Your task to perform on an android device: What is the recent news? Image 0: 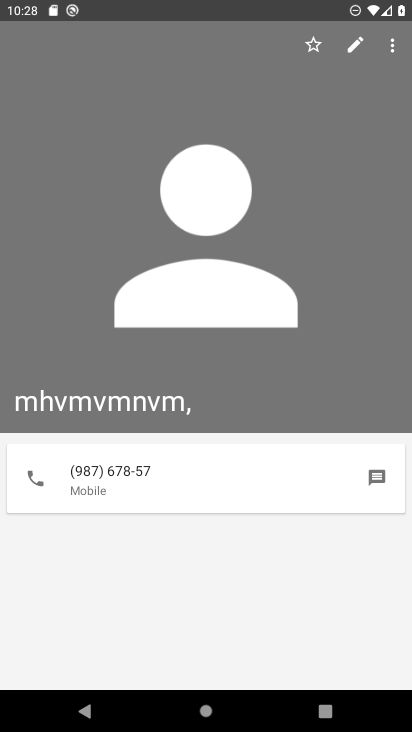
Step 0: press home button
Your task to perform on an android device: What is the recent news? Image 1: 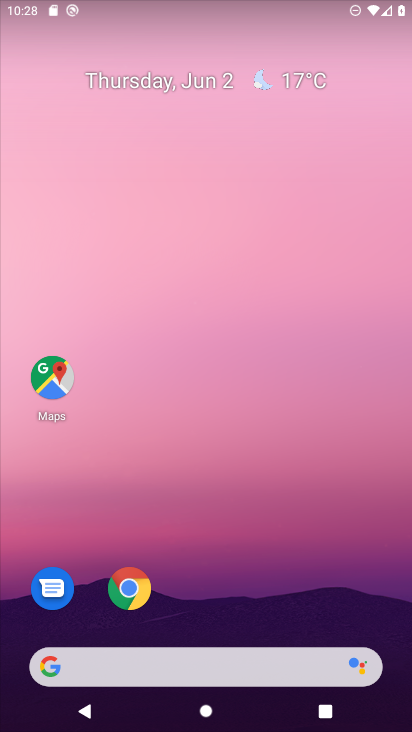
Step 1: drag from (231, 617) to (277, 215)
Your task to perform on an android device: What is the recent news? Image 2: 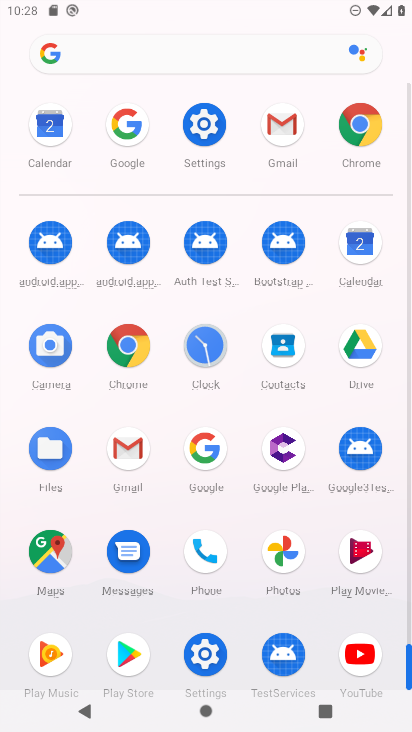
Step 2: click (209, 448)
Your task to perform on an android device: What is the recent news? Image 3: 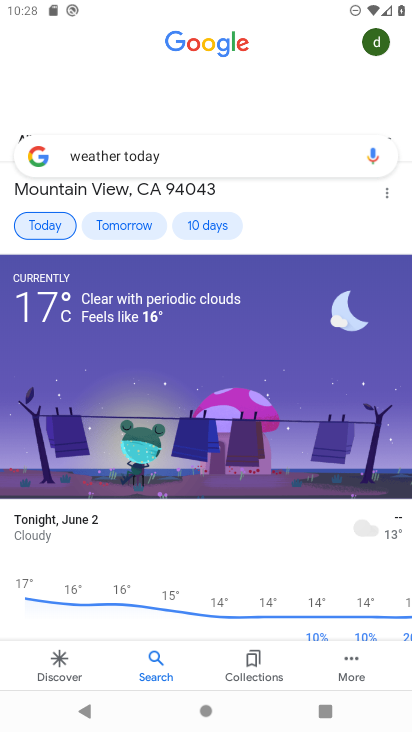
Step 3: click (264, 155)
Your task to perform on an android device: What is the recent news? Image 4: 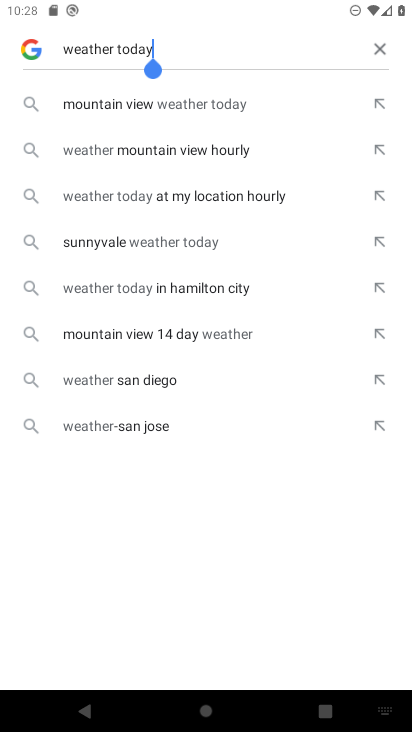
Step 4: click (378, 49)
Your task to perform on an android device: What is the recent news? Image 5: 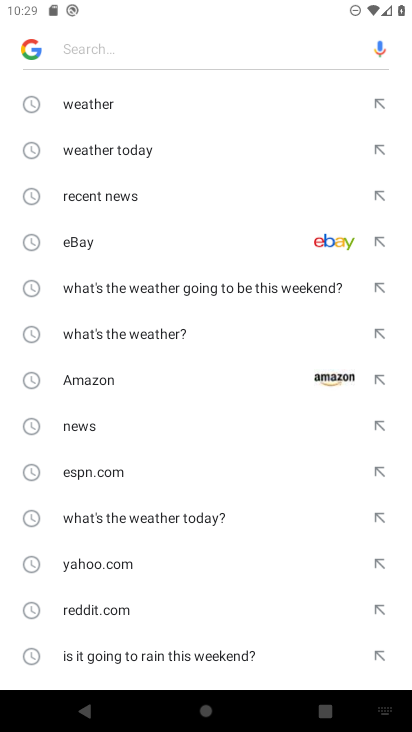
Step 5: click (154, 192)
Your task to perform on an android device: What is the recent news? Image 6: 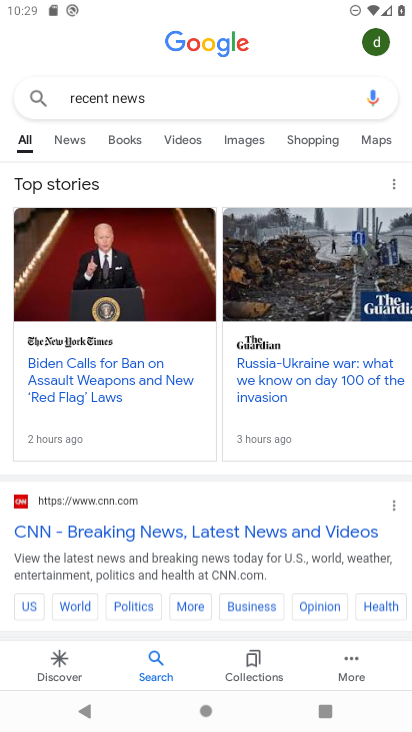
Step 6: task complete